Your task to perform on an android device: turn on airplane mode Image 0: 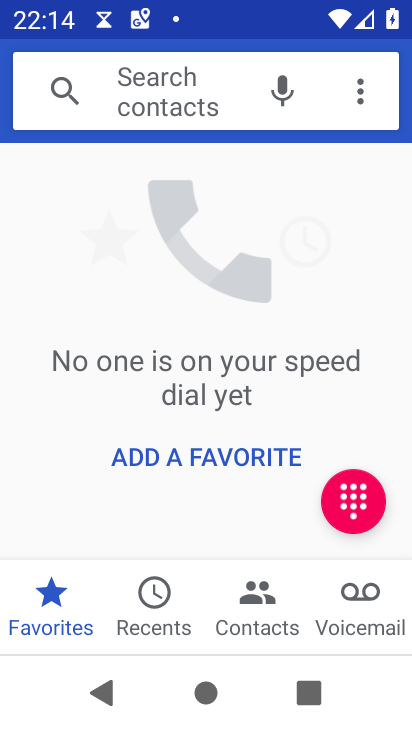
Step 0: press home button
Your task to perform on an android device: turn on airplane mode Image 1: 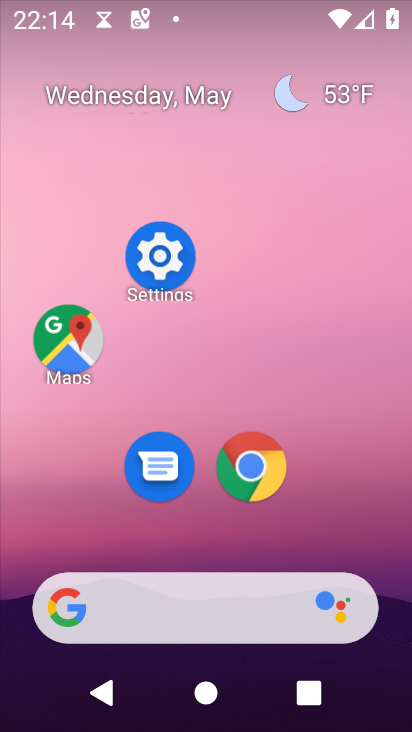
Step 1: click (166, 264)
Your task to perform on an android device: turn on airplane mode Image 2: 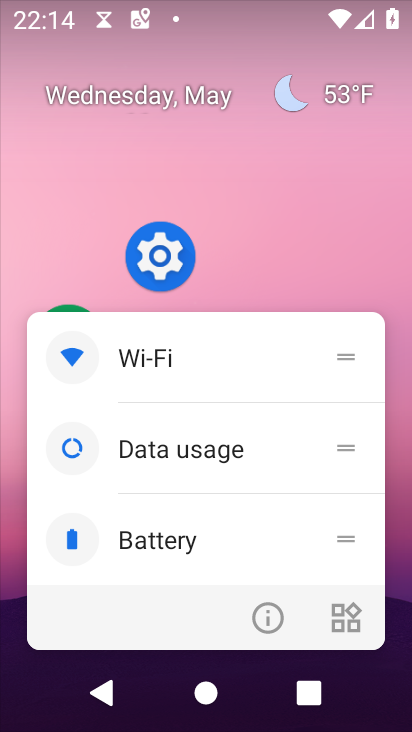
Step 2: click (265, 624)
Your task to perform on an android device: turn on airplane mode Image 3: 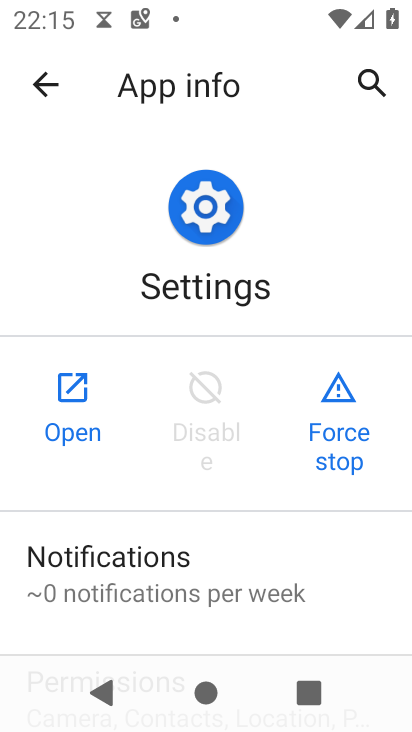
Step 3: click (270, 283)
Your task to perform on an android device: turn on airplane mode Image 4: 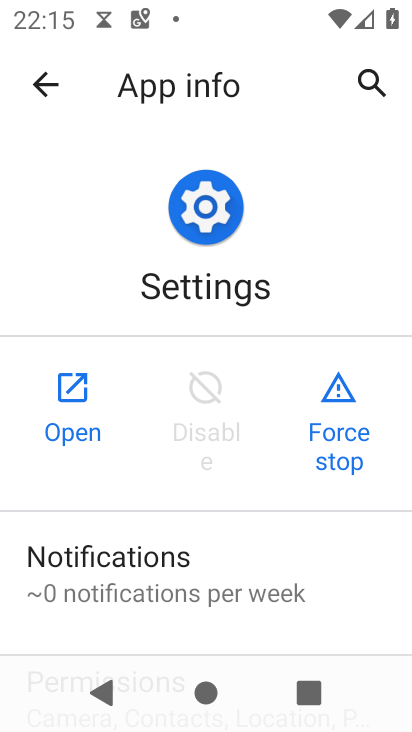
Step 4: click (70, 395)
Your task to perform on an android device: turn on airplane mode Image 5: 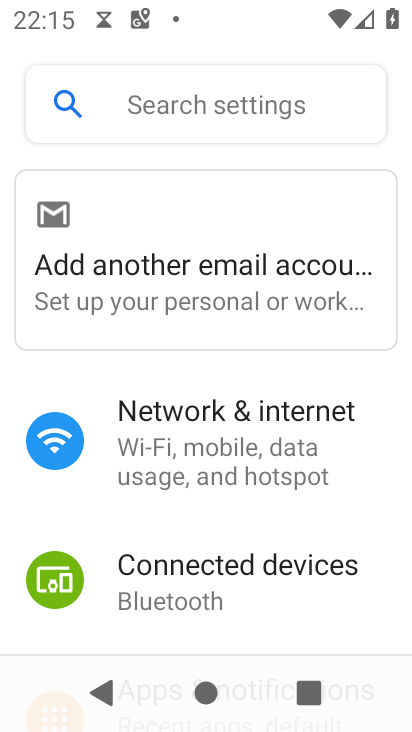
Step 5: click (195, 424)
Your task to perform on an android device: turn on airplane mode Image 6: 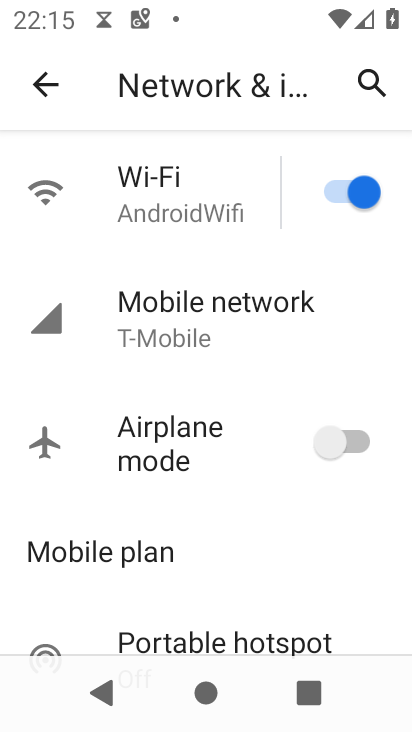
Step 6: click (248, 438)
Your task to perform on an android device: turn on airplane mode Image 7: 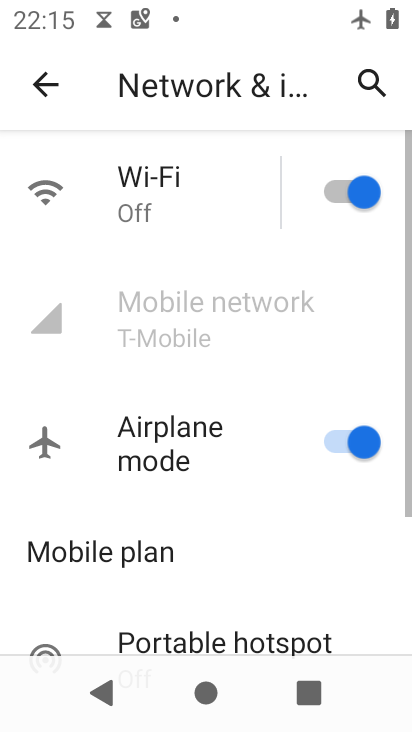
Step 7: task complete